Your task to perform on an android device: change notification settings in the gmail app Image 0: 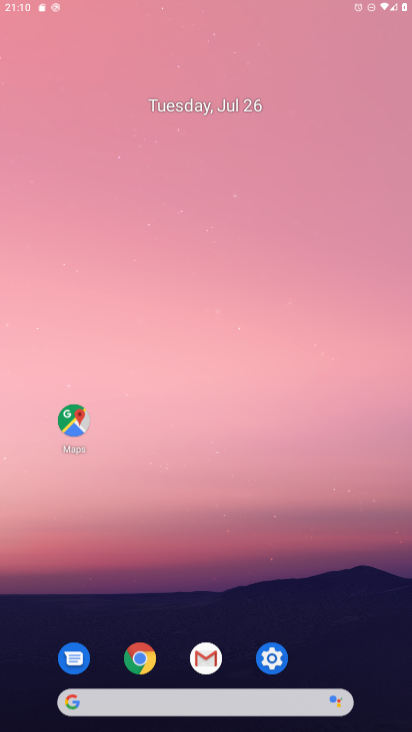
Step 0: press home button
Your task to perform on an android device: change notification settings in the gmail app Image 1: 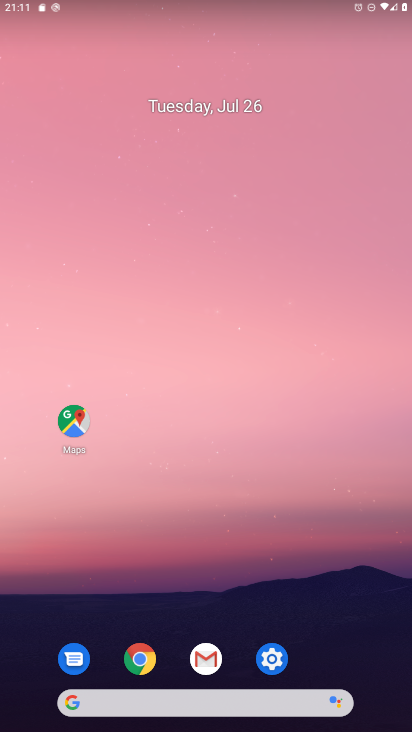
Step 1: click (214, 653)
Your task to perform on an android device: change notification settings in the gmail app Image 2: 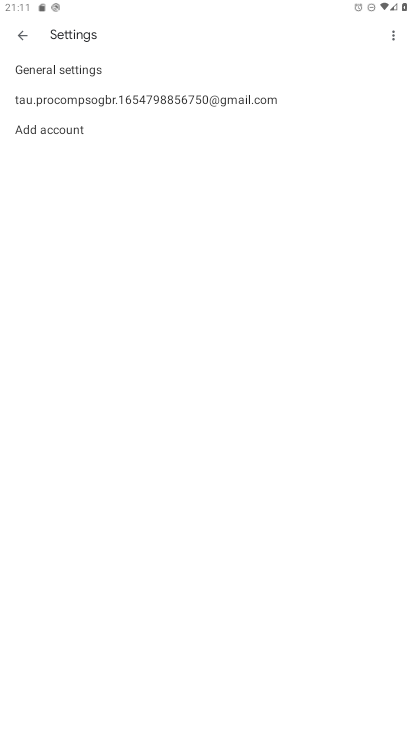
Step 2: click (13, 35)
Your task to perform on an android device: change notification settings in the gmail app Image 3: 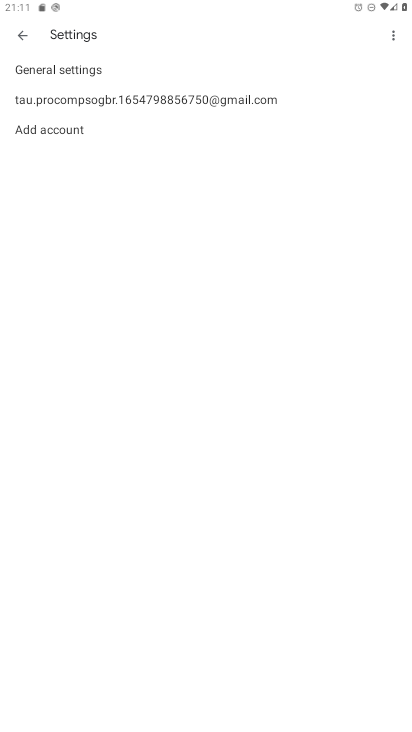
Step 3: click (58, 103)
Your task to perform on an android device: change notification settings in the gmail app Image 4: 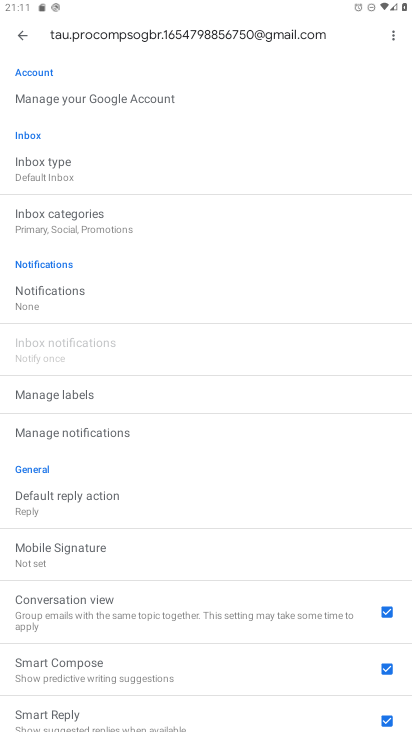
Step 4: click (72, 309)
Your task to perform on an android device: change notification settings in the gmail app Image 5: 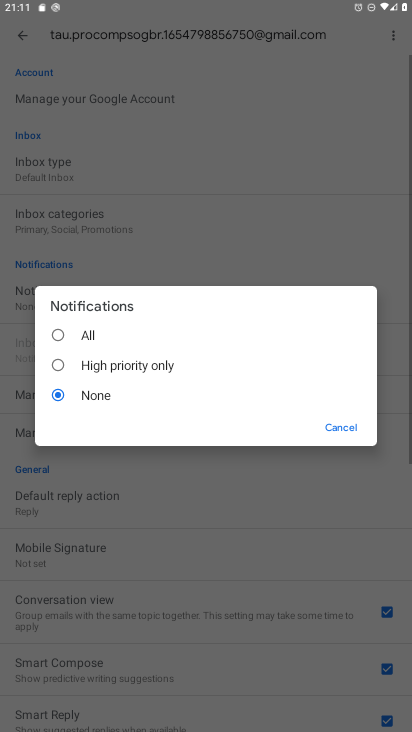
Step 5: click (77, 323)
Your task to perform on an android device: change notification settings in the gmail app Image 6: 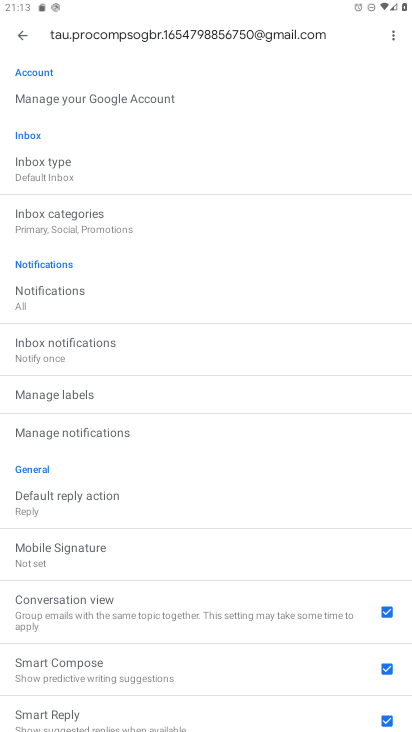
Step 6: task complete